Your task to perform on an android device: toggle notification dots Image 0: 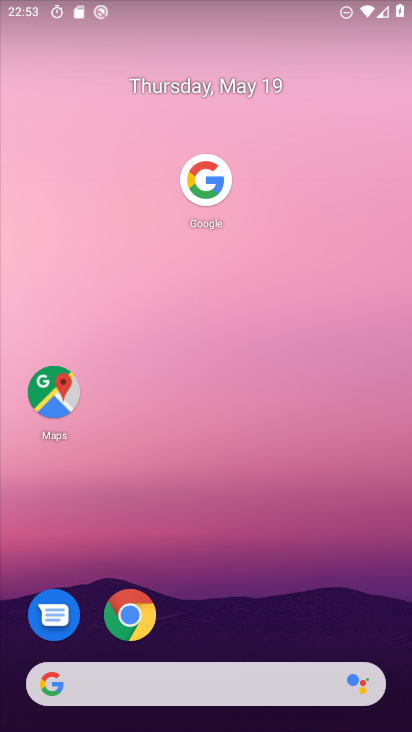
Step 0: drag from (231, 589) to (271, 67)
Your task to perform on an android device: toggle notification dots Image 1: 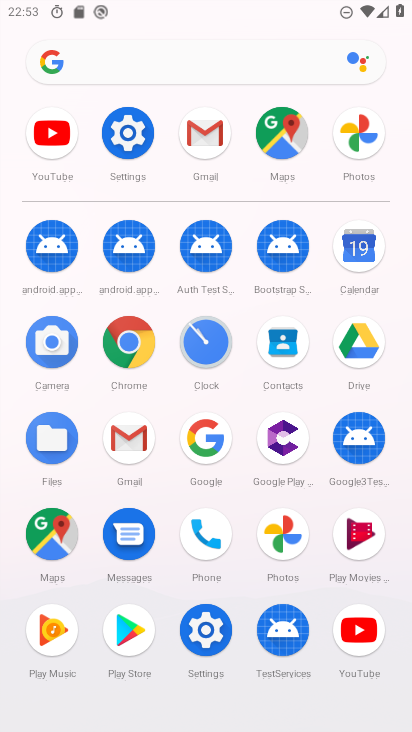
Step 1: click (124, 131)
Your task to perform on an android device: toggle notification dots Image 2: 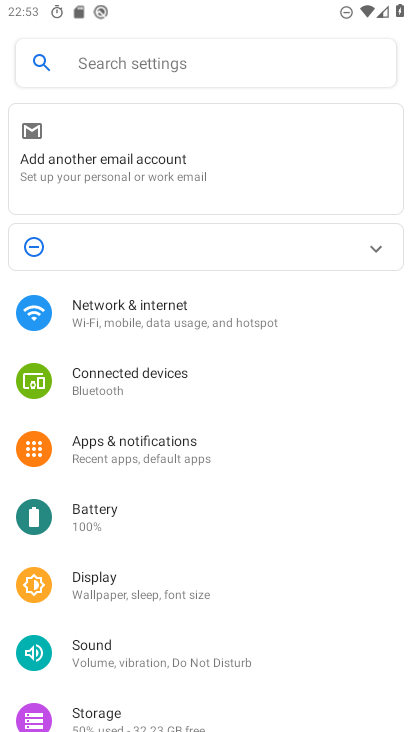
Step 2: click (158, 436)
Your task to perform on an android device: toggle notification dots Image 3: 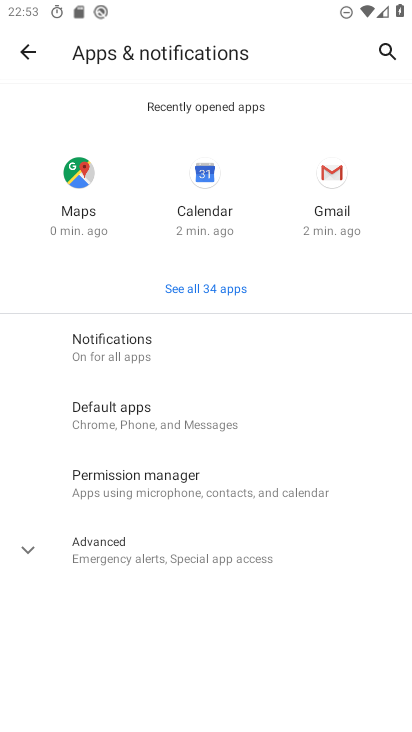
Step 3: click (132, 341)
Your task to perform on an android device: toggle notification dots Image 4: 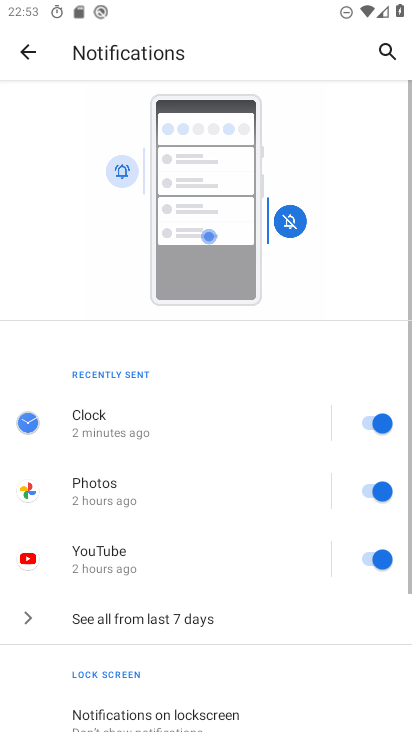
Step 4: drag from (293, 570) to (266, 70)
Your task to perform on an android device: toggle notification dots Image 5: 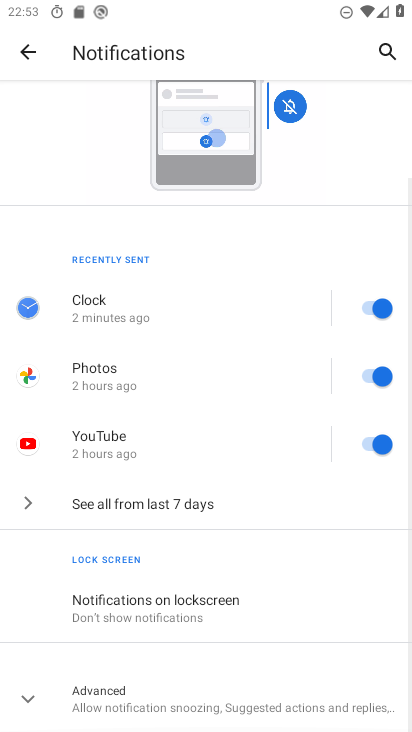
Step 5: click (114, 696)
Your task to perform on an android device: toggle notification dots Image 6: 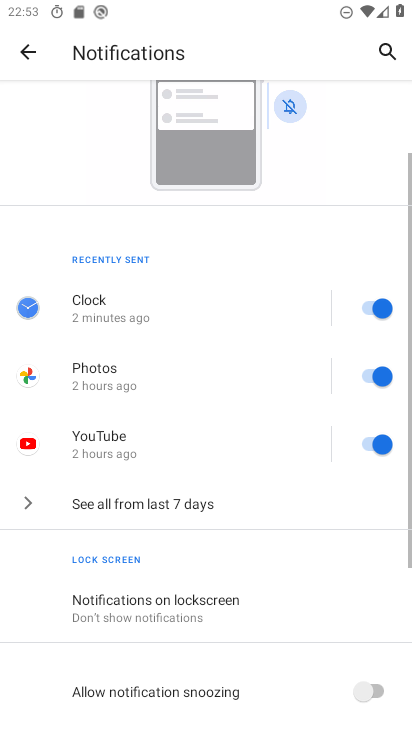
Step 6: drag from (253, 644) to (287, 143)
Your task to perform on an android device: toggle notification dots Image 7: 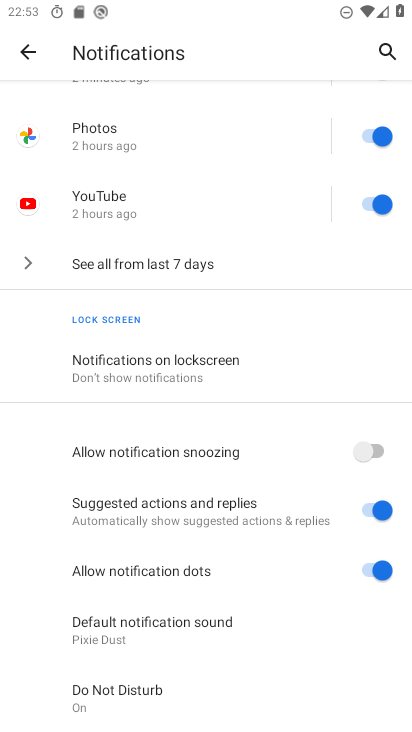
Step 7: click (374, 570)
Your task to perform on an android device: toggle notification dots Image 8: 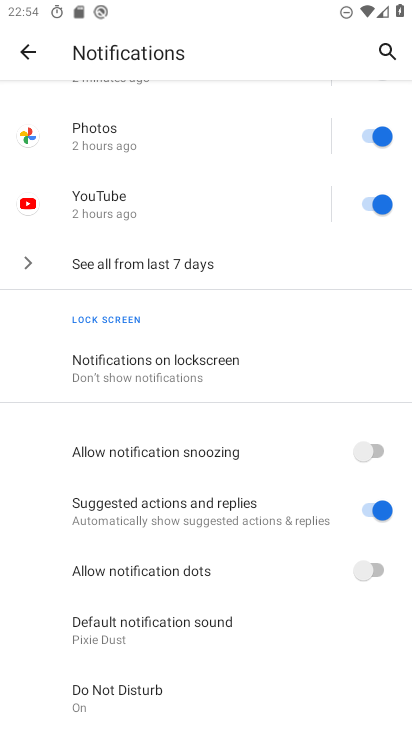
Step 8: task complete